Your task to perform on an android device: Open Google Maps and go to "Timeline" Image 0: 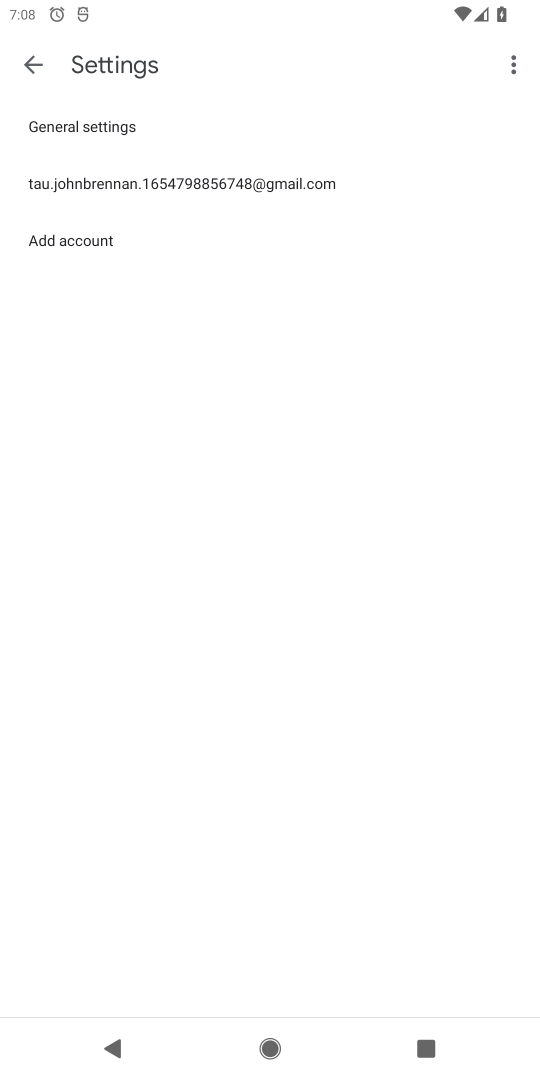
Step 0: press home button
Your task to perform on an android device: Open Google Maps and go to "Timeline" Image 1: 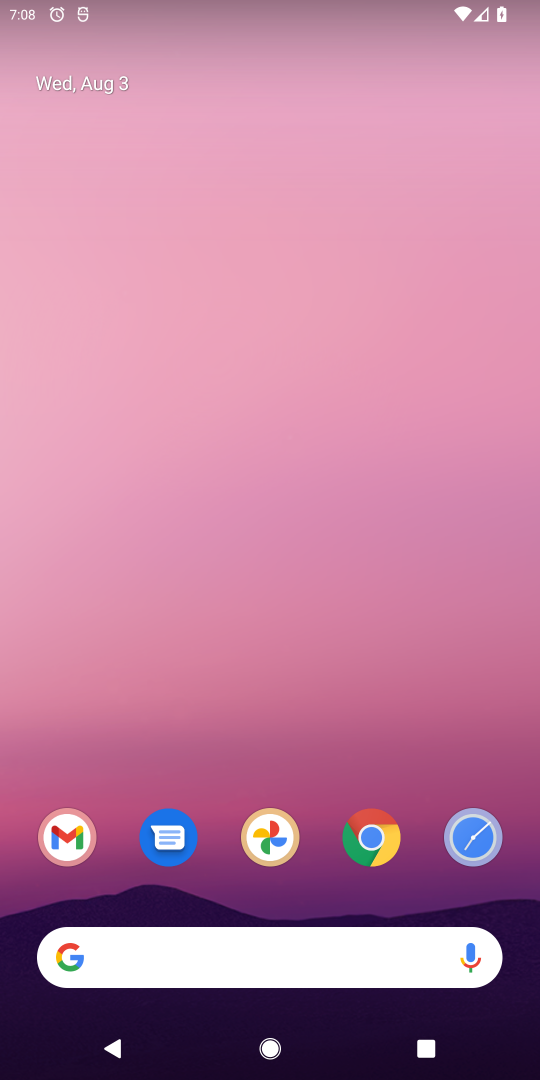
Step 1: drag from (367, 737) to (398, 227)
Your task to perform on an android device: Open Google Maps and go to "Timeline" Image 2: 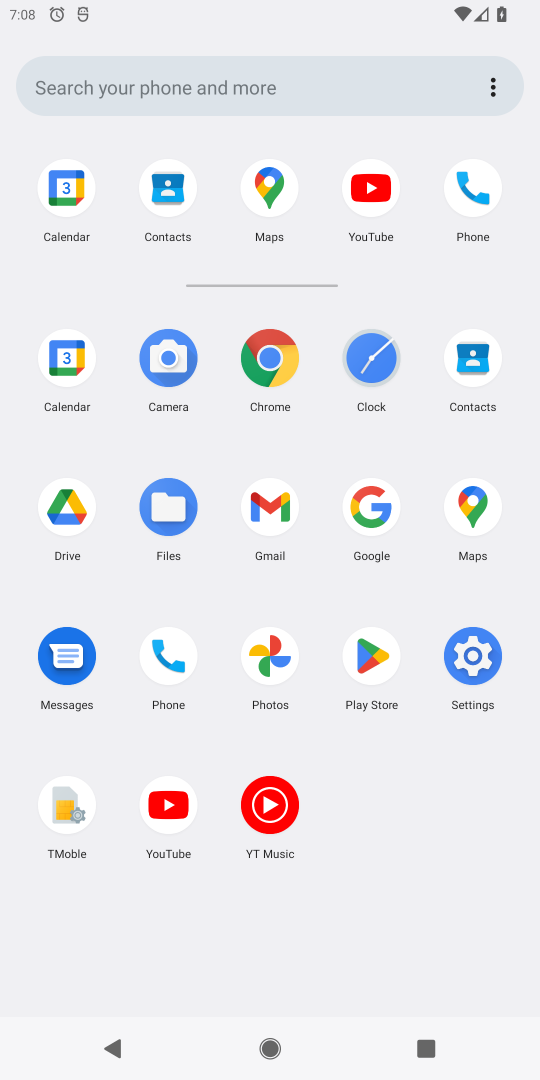
Step 2: click (481, 482)
Your task to perform on an android device: Open Google Maps and go to "Timeline" Image 3: 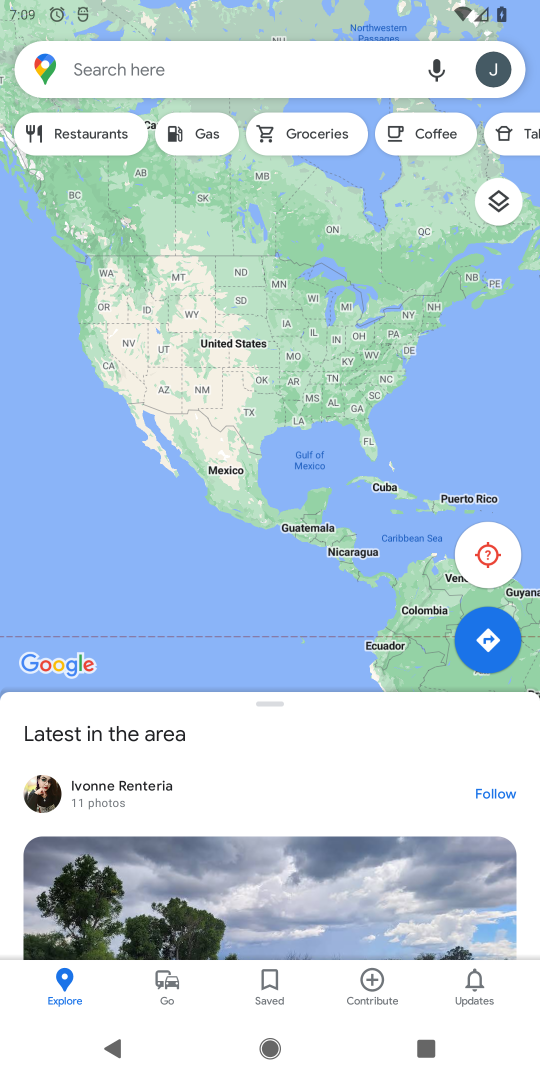
Step 3: click (489, 65)
Your task to perform on an android device: Open Google Maps and go to "Timeline" Image 4: 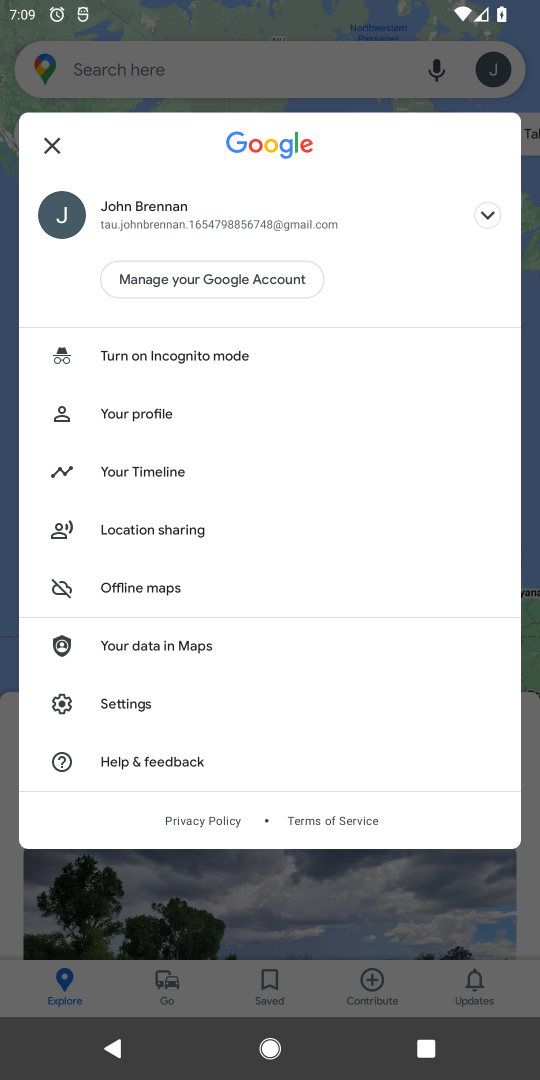
Step 4: click (138, 476)
Your task to perform on an android device: Open Google Maps and go to "Timeline" Image 5: 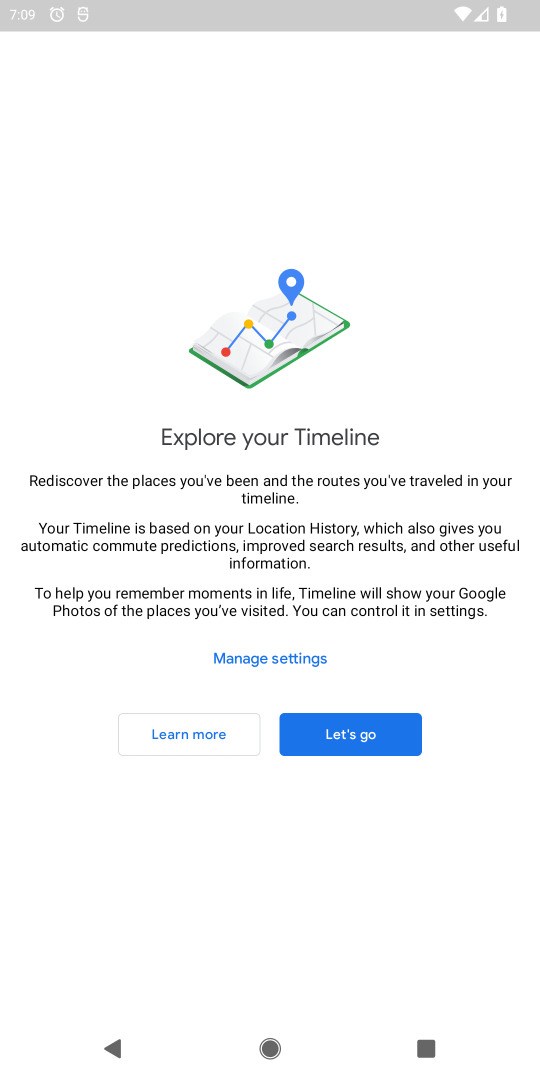
Step 5: click (350, 748)
Your task to perform on an android device: Open Google Maps and go to "Timeline" Image 6: 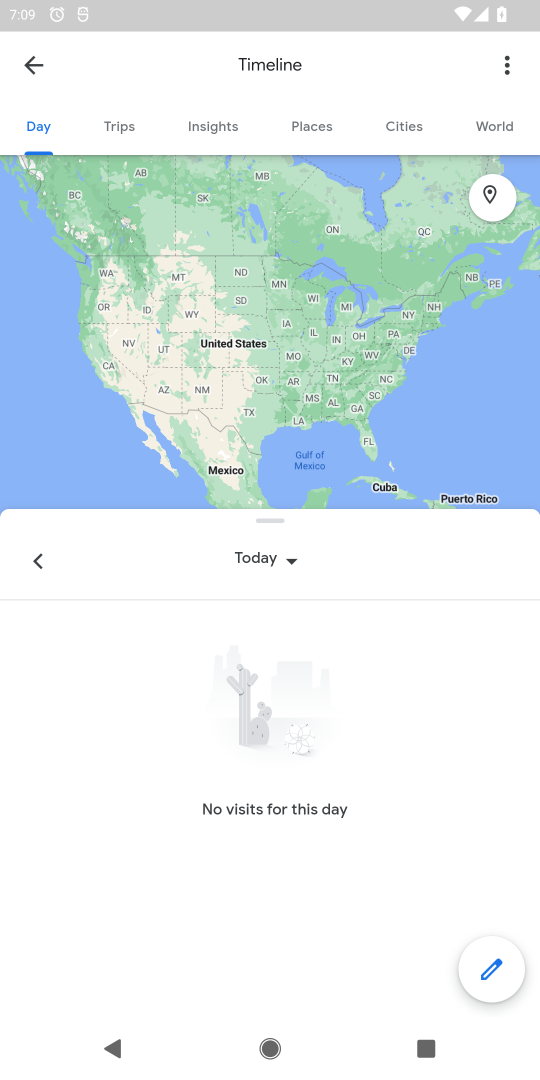
Step 6: task complete